Your task to perform on an android device: turn off data saver in the chrome app Image 0: 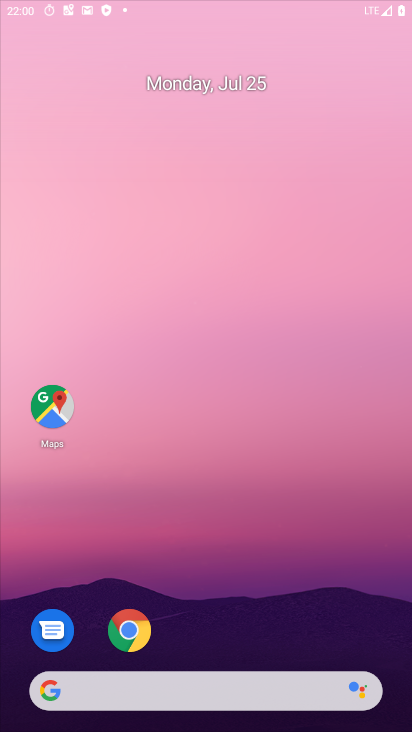
Step 0: press home button
Your task to perform on an android device: turn off data saver in the chrome app Image 1: 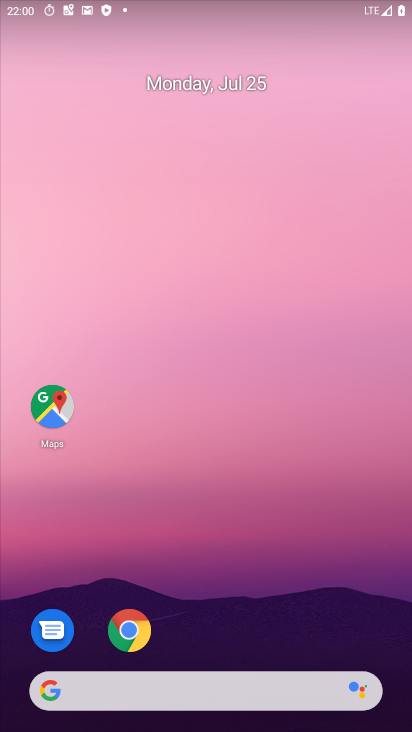
Step 1: drag from (250, 597) to (282, 27)
Your task to perform on an android device: turn off data saver in the chrome app Image 2: 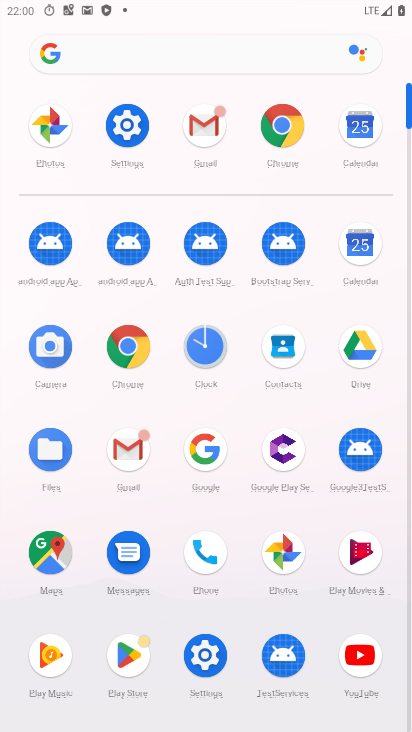
Step 2: click (285, 124)
Your task to perform on an android device: turn off data saver in the chrome app Image 3: 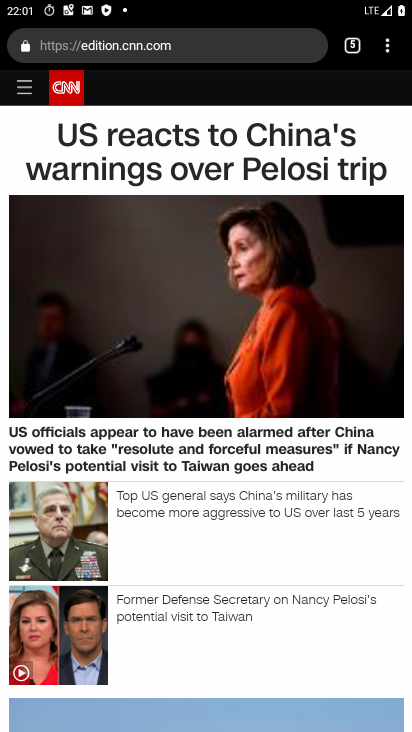
Step 3: drag from (388, 50) to (231, 550)
Your task to perform on an android device: turn off data saver in the chrome app Image 4: 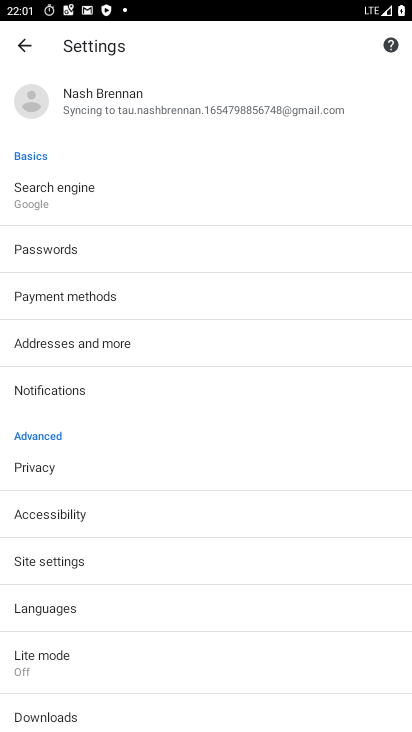
Step 4: click (35, 660)
Your task to perform on an android device: turn off data saver in the chrome app Image 5: 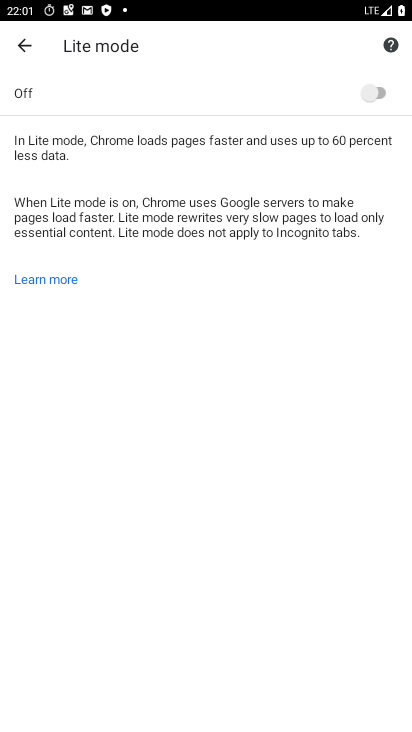
Step 5: task complete